Your task to perform on an android device: clear history in the chrome app Image 0: 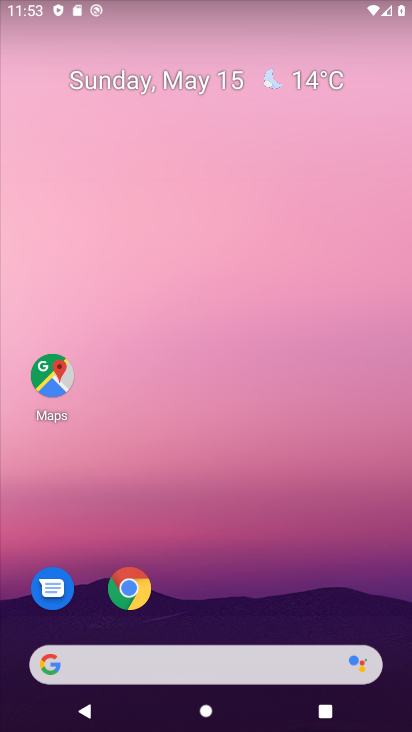
Step 0: click (136, 593)
Your task to perform on an android device: clear history in the chrome app Image 1: 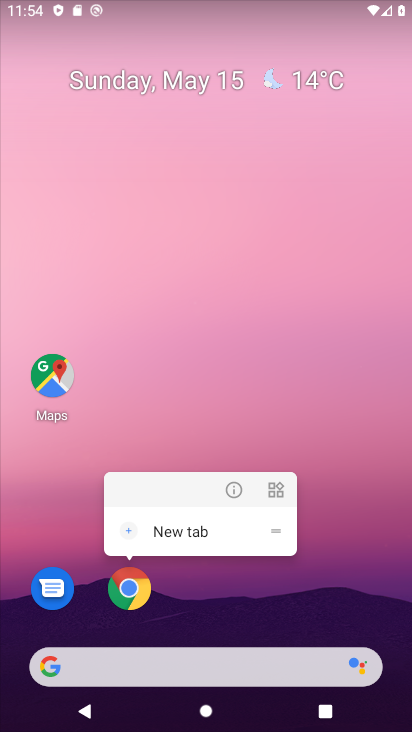
Step 1: click (128, 585)
Your task to perform on an android device: clear history in the chrome app Image 2: 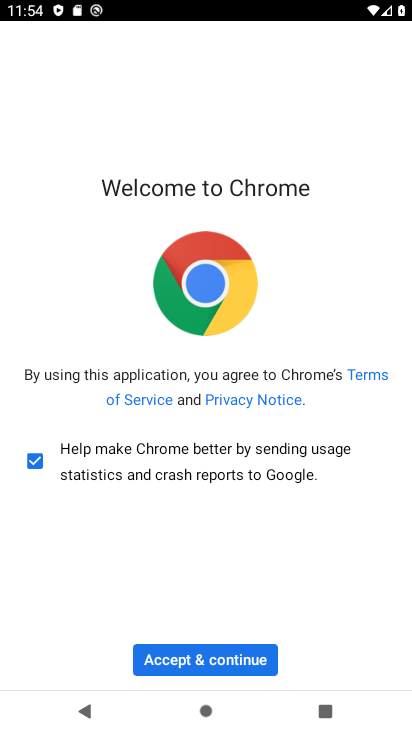
Step 2: click (243, 666)
Your task to perform on an android device: clear history in the chrome app Image 3: 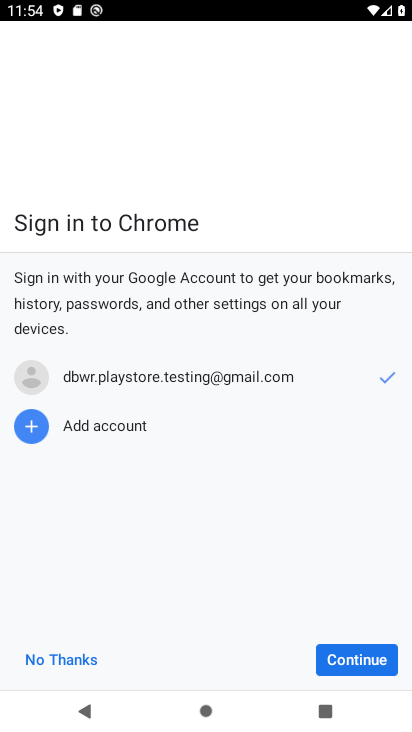
Step 3: click (378, 654)
Your task to perform on an android device: clear history in the chrome app Image 4: 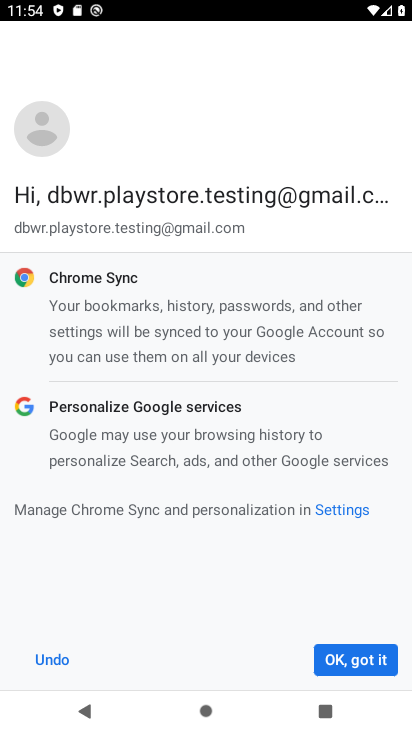
Step 4: click (355, 660)
Your task to perform on an android device: clear history in the chrome app Image 5: 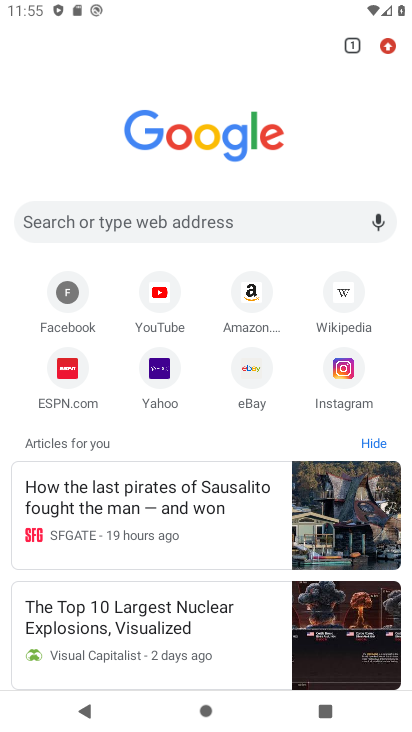
Step 5: click (384, 43)
Your task to perform on an android device: clear history in the chrome app Image 6: 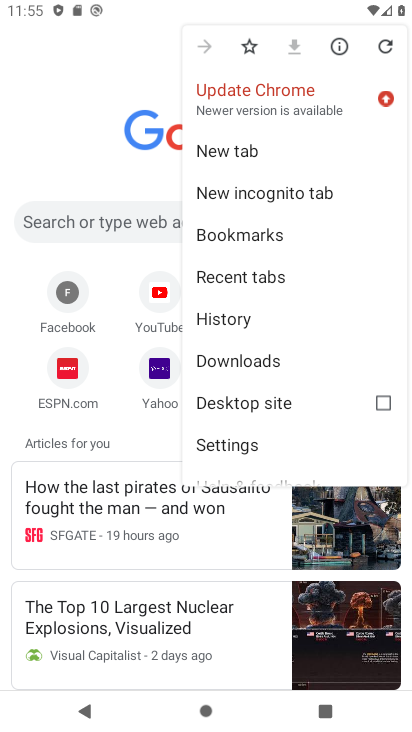
Step 6: click (228, 312)
Your task to perform on an android device: clear history in the chrome app Image 7: 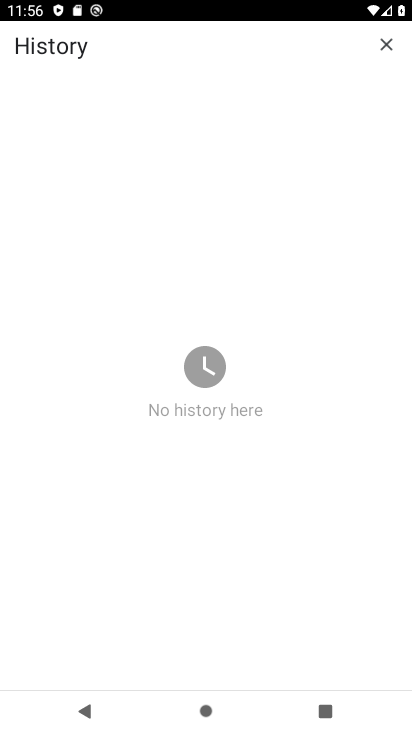
Step 7: click (177, 486)
Your task to perform on an android device: clear history in the chrome app Image 8: 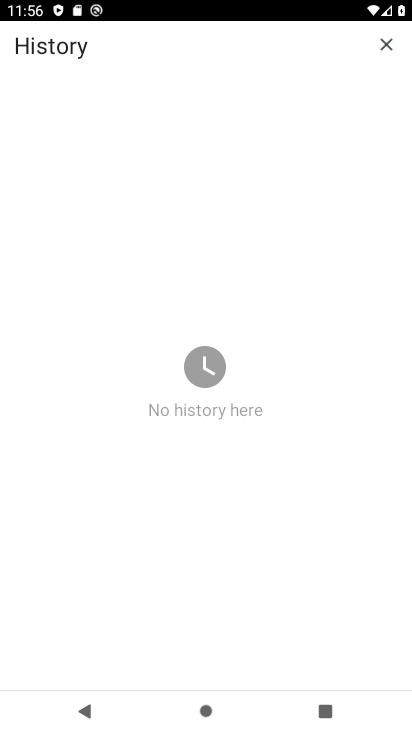
Step 8: task complete